Your task to perform on an android device: Open internet settings Image 0: 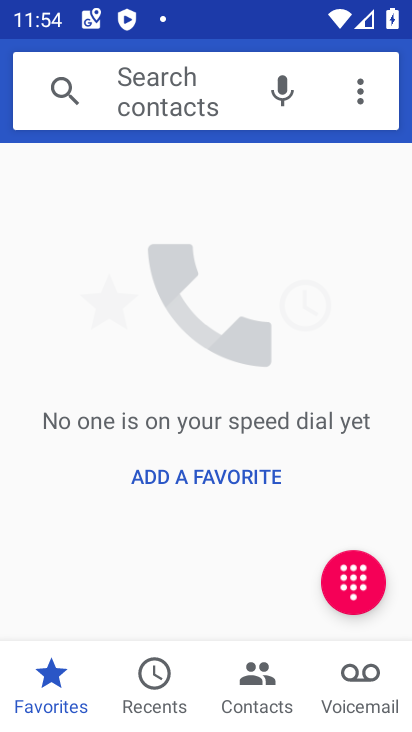
Step 0: press back button
Your task to perform on an android device: Open internet settings Image 1: 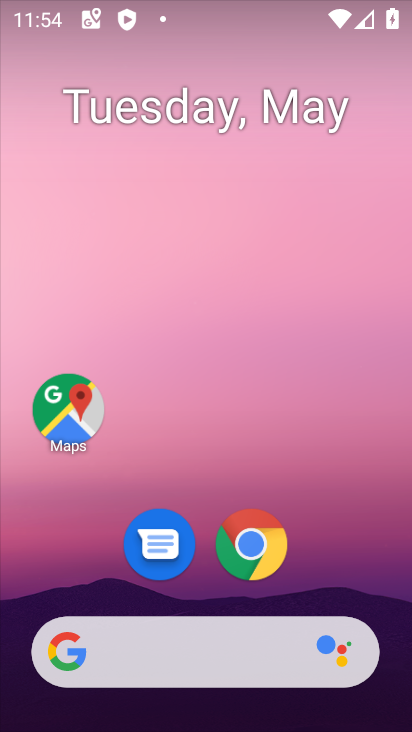
Step 1: drag from (392, 701) to (183, 2)
Your task to perform on an android device: Open internet settings Image 2: 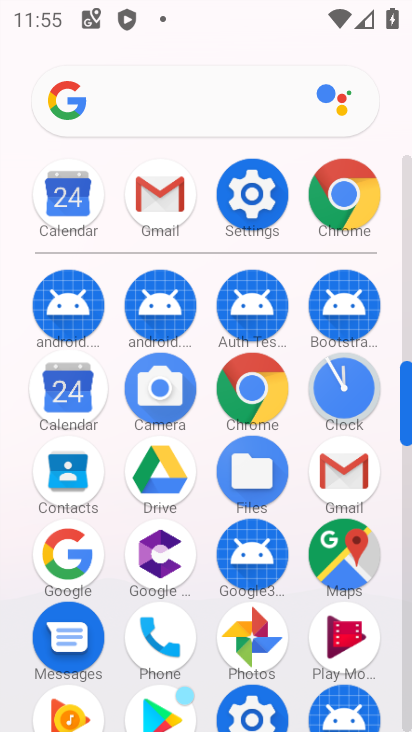
Step 2: click (257, 200)
Your task to perform on an android device: Open internet settings Image 3: 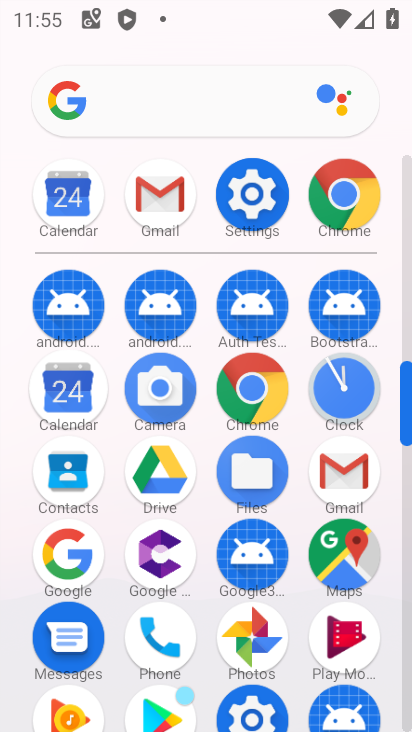
Step 3: click (257, 200)
Your task to perform on an android device: Open internet settings Image 4: 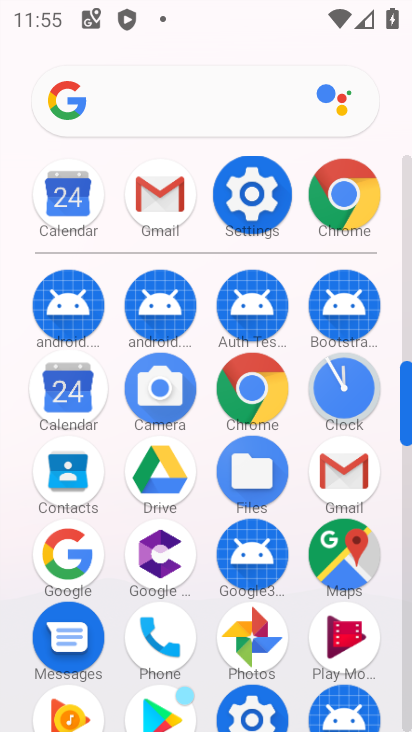
Step 4: click (258, 199)
Your task to perform on an android device: Open internet settings Image 5: 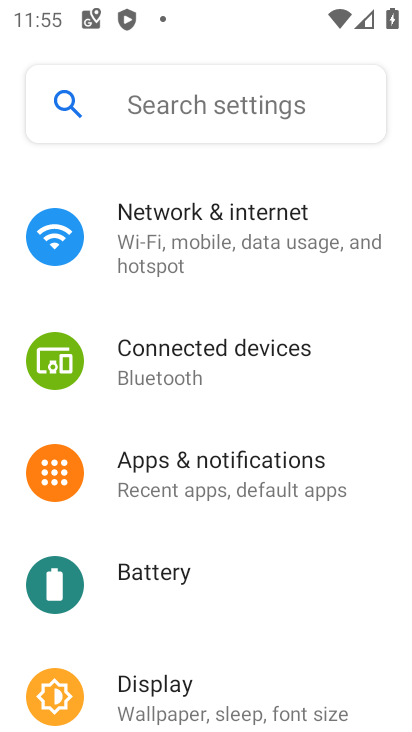
Step 5: click (262, 196)
Your task to perform on an android device: Open internet settings Image 6: 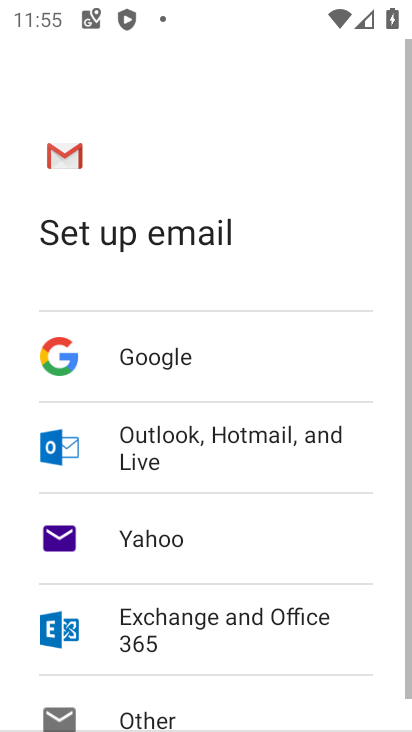
Step 6: press back button
Your task to perform on an android device: Open internet settings Image 7: 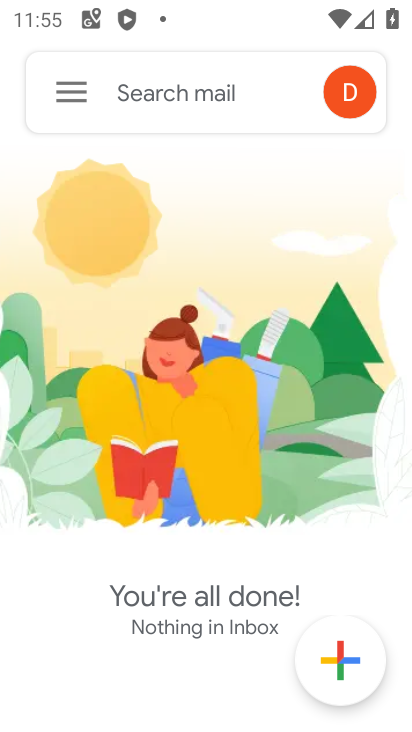
Step 7: press home button
Your task to perform on an android device: Open internet settings Image 8: 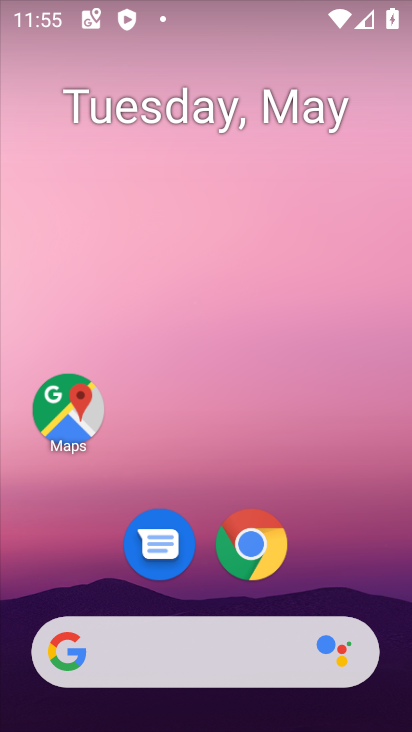
Step 8: drag from (373, 647) to (155, 0)
Your task to perform on an android device: Open internet settings Image 9: 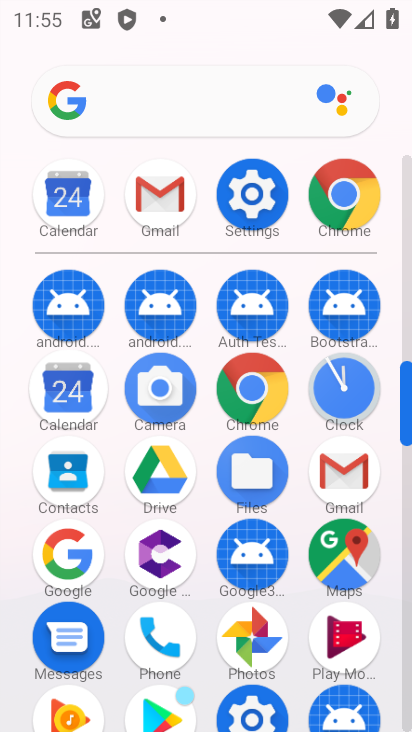
Step 9: drag from (381, 666) to (224, 235)
Your task to perform on an android device: Open internet settings Image 10: 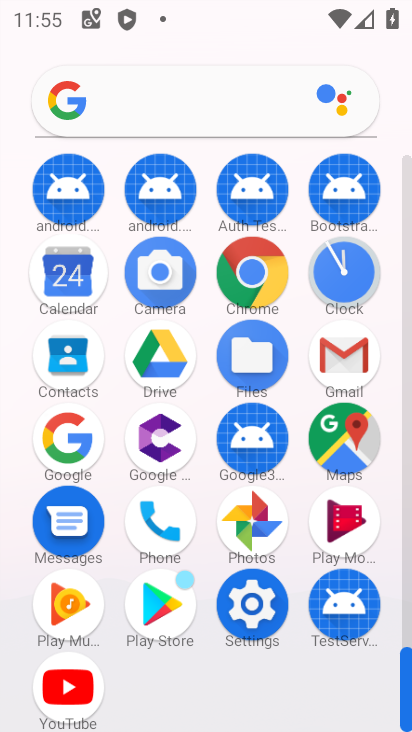
Step 10: click (269, 611)
Your task to perform on an android device: Open internet settings Image 11: 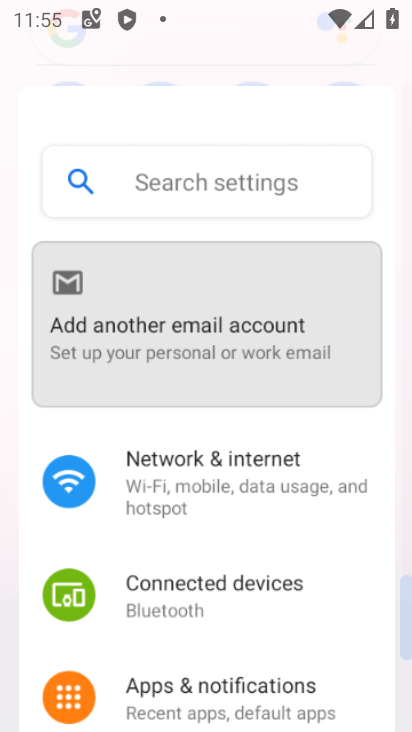
Step 11: click (258, 606)
Your task to perform on an android device: Open internet settings Image 12: 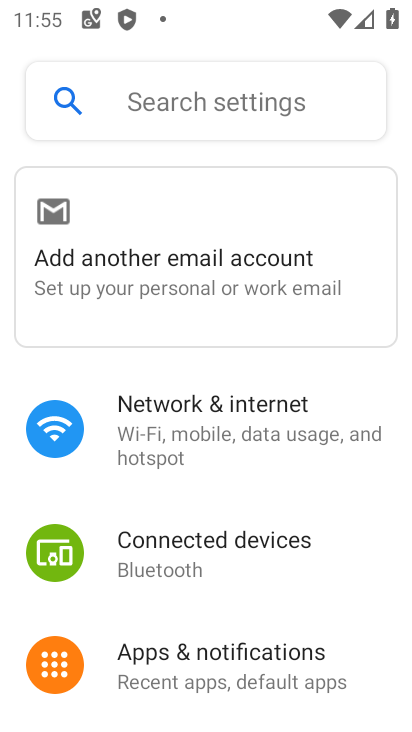
Step 12: click (231, 425)
Your task to perform on an android device: Open internet settings Image 13: 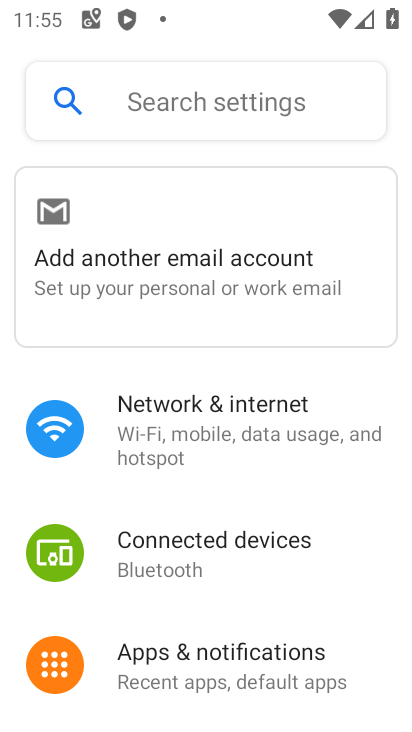
Step 13: click (231, 424)
Your task to perform on an android device: Open internet settings Image 14: 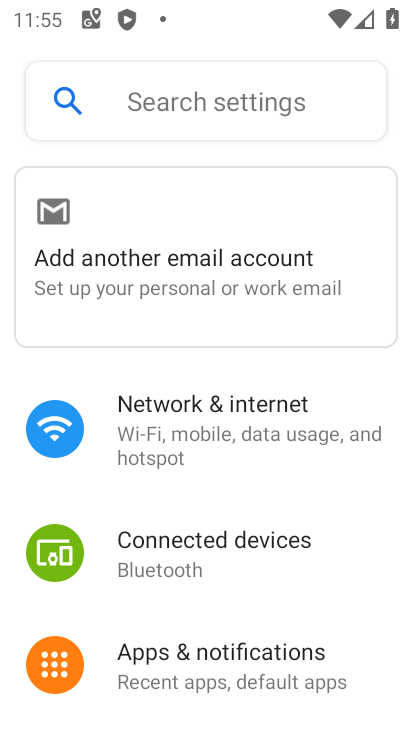
Step 14: click (248, 400)
Your task to perform on an android device: Open internet settings Image 15: 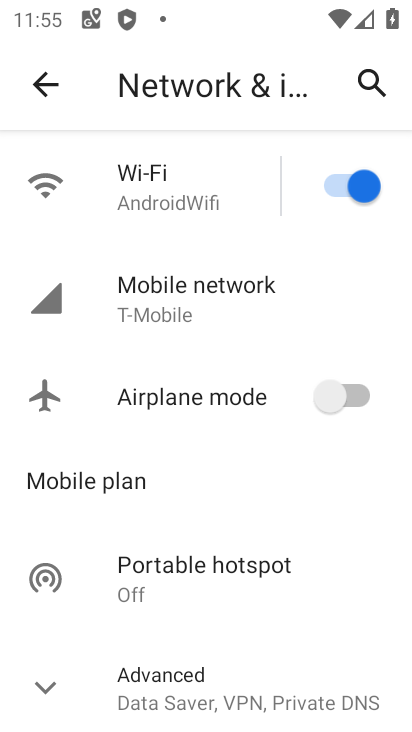
Step 15: task complete